Your task to perform on an android device: toggle priority inbox in the gmail app Image 0: 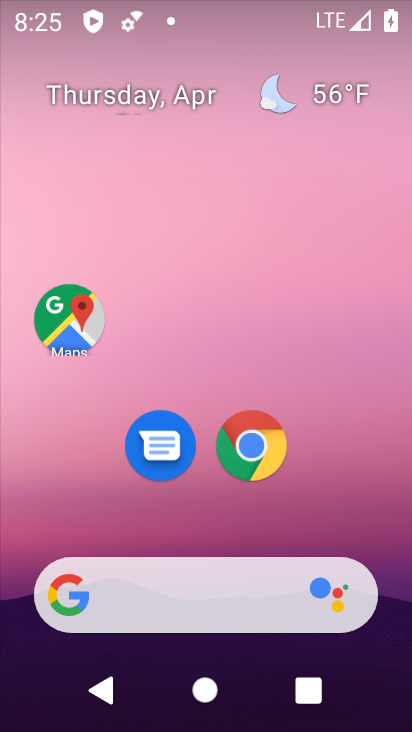
Step 0: drag from (382, 533) to (336, 0)
Your task to perform on an android device: toggle priority inbox in the gmail app Image 1: 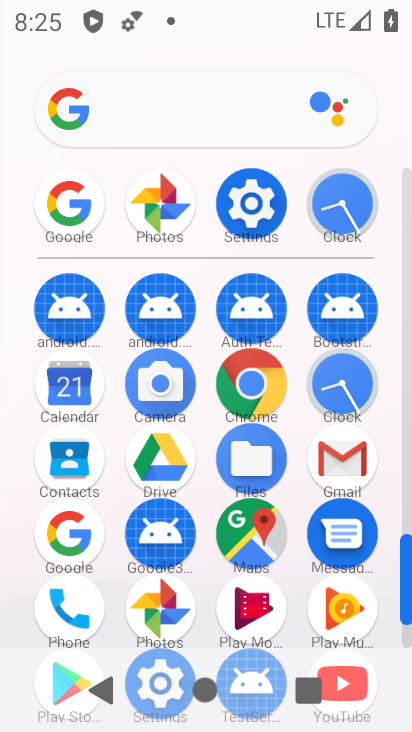
Step 1: click (332, 469)
Your task to perform on an android device: toggle priority inbox in the gmail app Image 2: 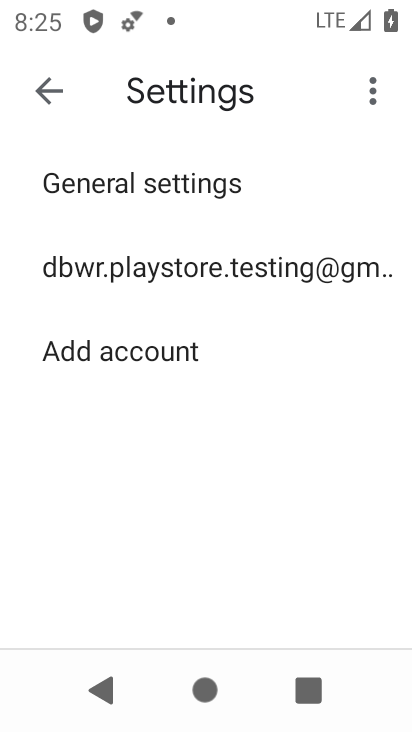
Step 2: click (144, 263)
Your task to perform on an android device: toggle priority inbox in the gmail app Image 3: 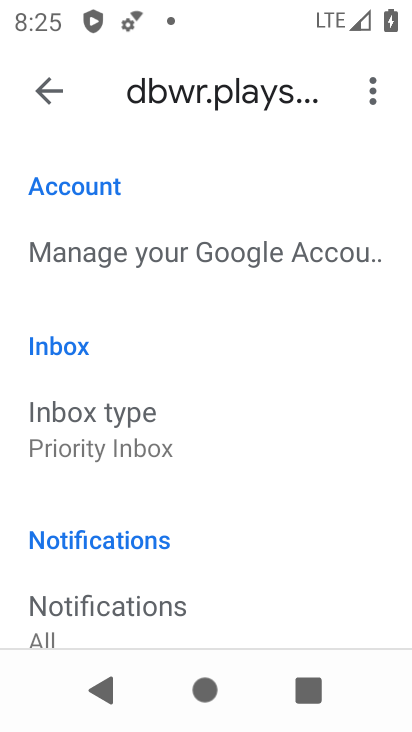
Step 3: click (82, 428)
Your task to perform on an android device: toggle priority inbox in the gmail app Image 4: 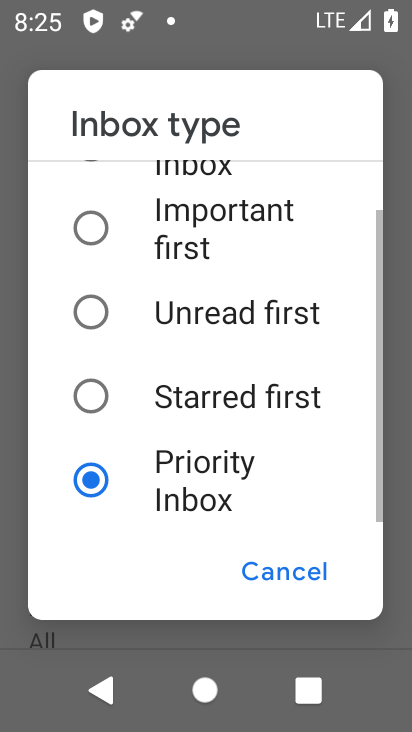
Step 4: click (91, 403)
Your task to perform on an android device: toggle priority inbox in the gmail app Image 5: 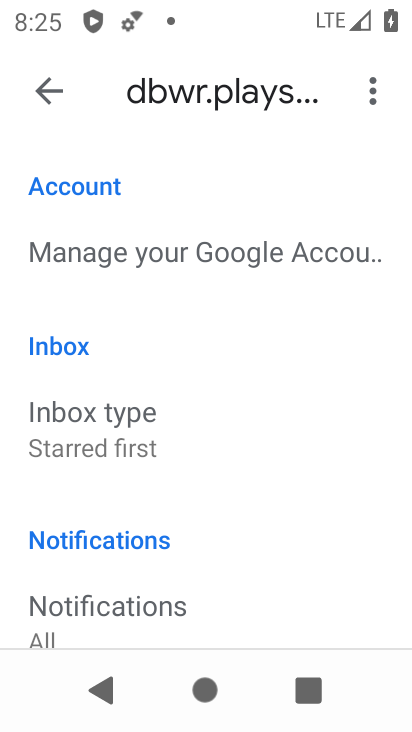
Step 5: task complete